Your task to perform on an android device: turn on bluetooth scan Image 0: 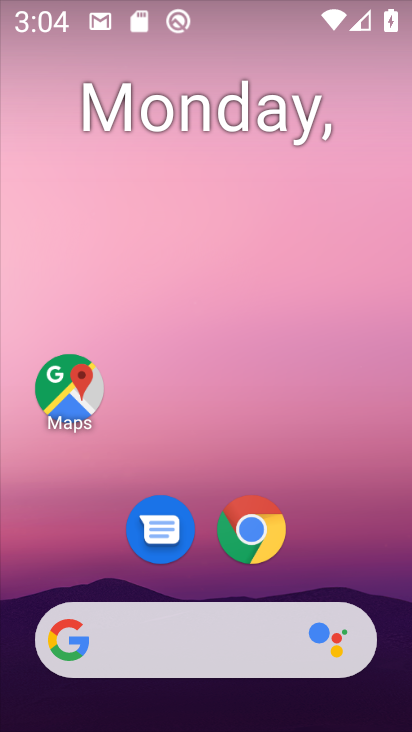
Step 0: drag from (223, 288) to (273, 103)
Your task to perform on an android device: turn on bluetooth scan Image 1: 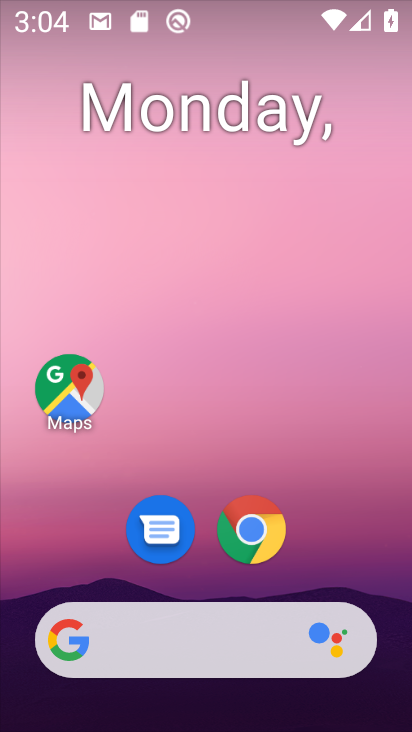
Step 1: drag from (200, 599) to (317, 28)
Your task to perform on an android device: turn on bluetooth scan Image 2: 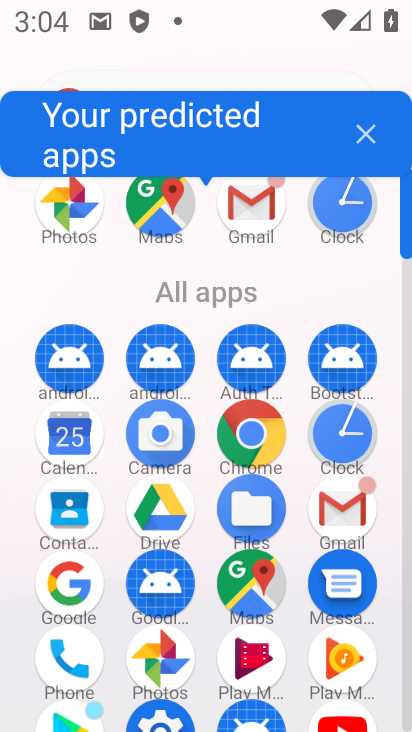
Step 2: click (169, 718)
Your task to perform on an android device: turn on bluetooth scan Image 3: 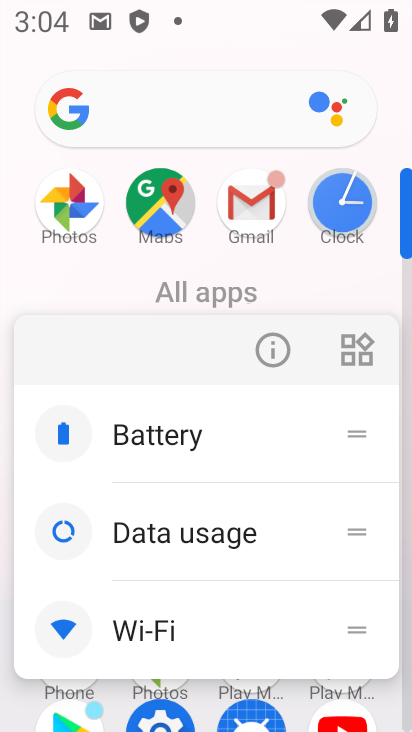
Step 3: click (185, 729)
Your task to perform on an android device: turn on bluetooth scan Image 4: 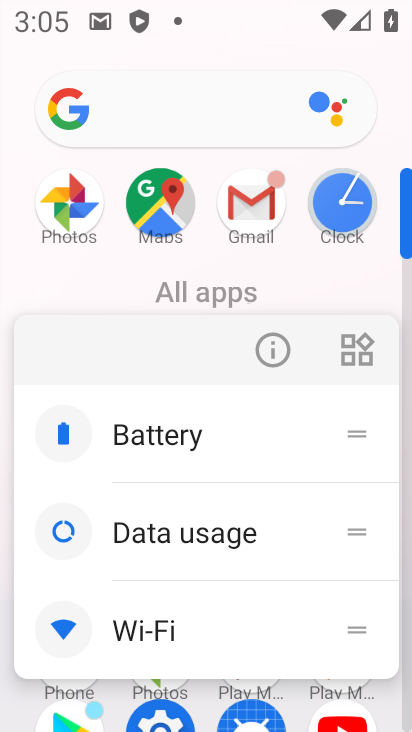
Step 4: click (158, 725)
Your task to perform on an android device: turn on bluetooth scan Image 5: 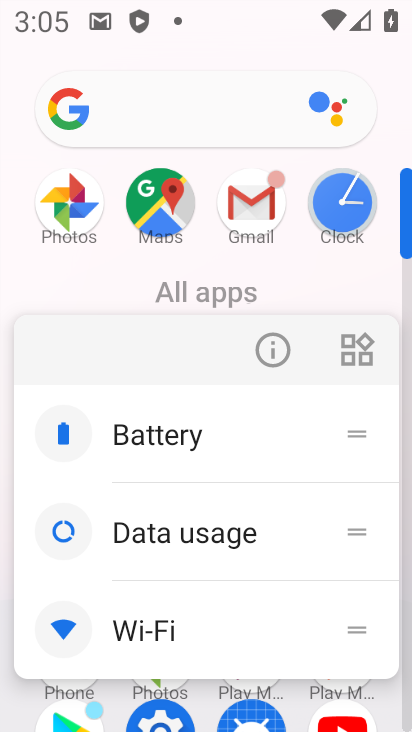
Step 5: click (158, 723)
Your task to perform on an android device: turn on bluetooth scan Image 6: 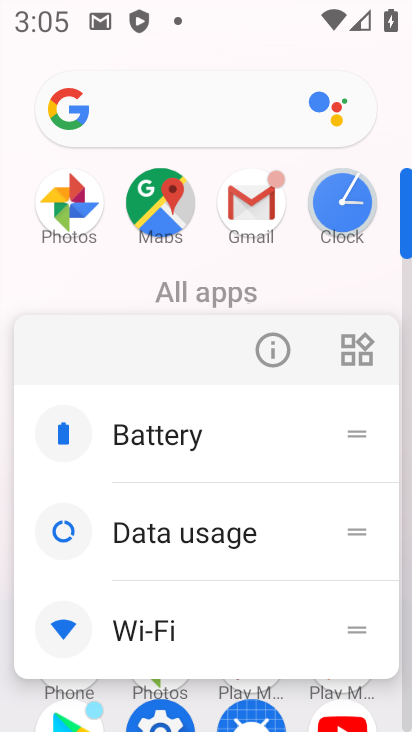
Step 6: click (168, 709)
Your task to perform on an android device: turn on bluetooth scan Image 7: 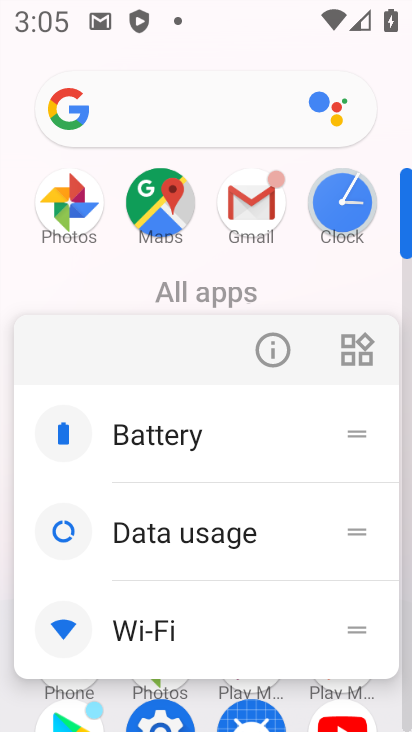
Step 7: click (162, 716)
Your task to perform on an android device: turn on bluetooth scan Image 8: 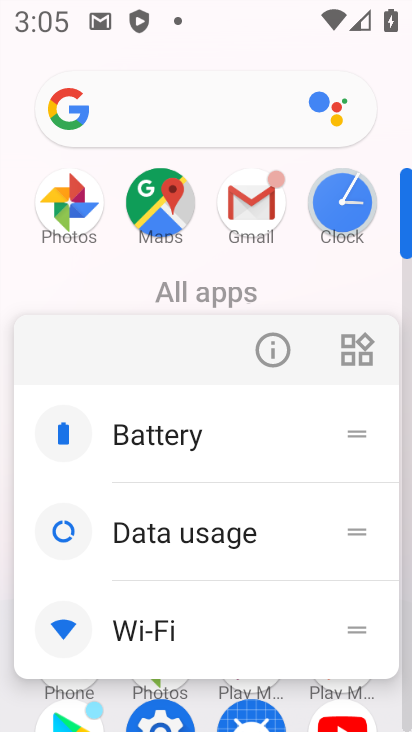
Step 8: click (168, 727)
Your task to perform on an android device: turn on bluetooth scan Image 9: 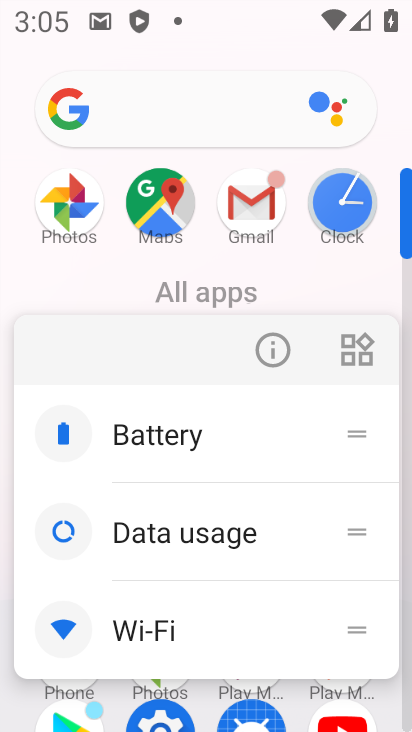
Step 9: click (165, 721)
Your task to perform on an android device: turn on bluetooth scan Image 10: 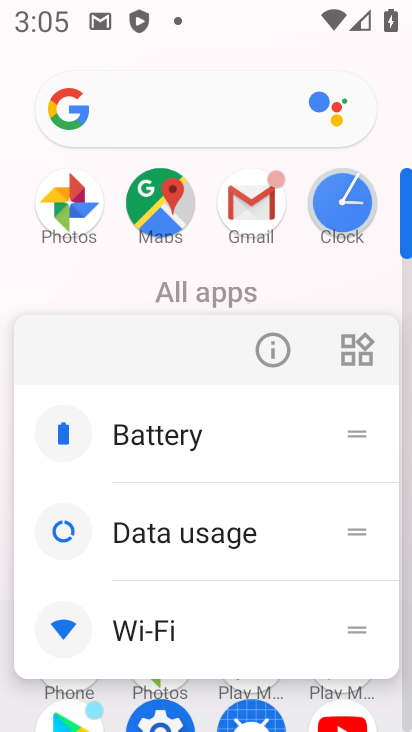
Step 10: drag from (399, 232) to (346, 632)
Your task to perform on an android device: turn on bluetooth scan Image 11: 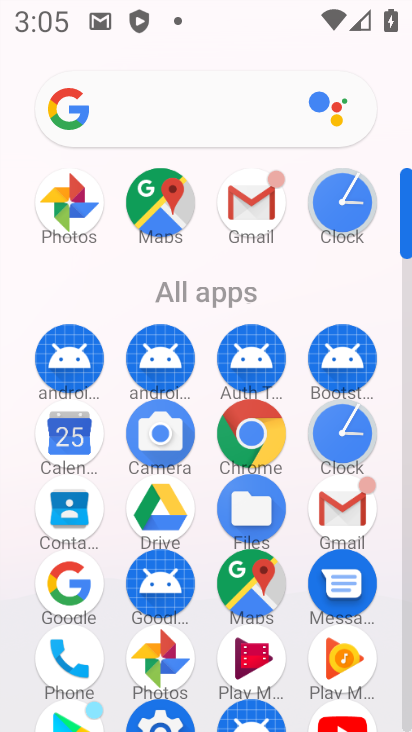
Step 11: drag from (410, 240) to (406, 554)
Your task to perform on an android device: turn on bluetooth scan Image 12: 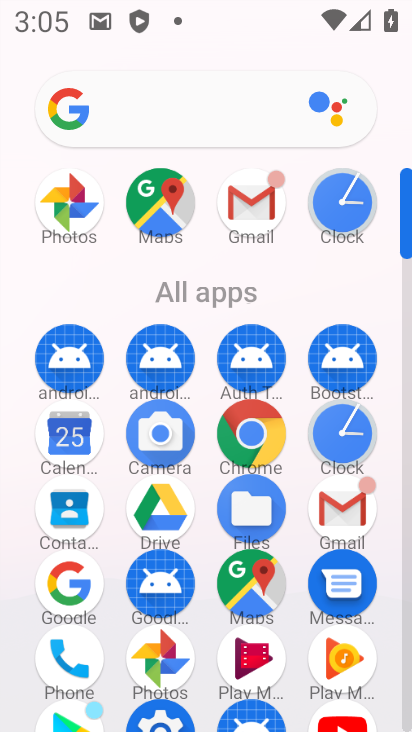
Step 12: click (391, 582)
Your task to perform on an android device: turn on bluetooth scan Image 13: 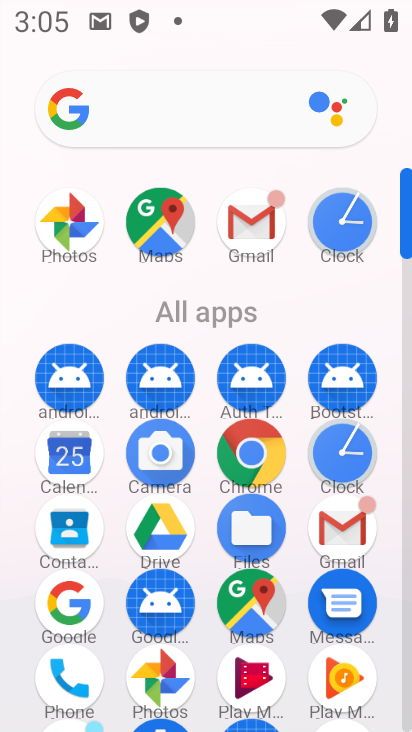
Step 13: click (166, 680)
Your task to perform on an android device: turn on bluetooth scan Image 14: 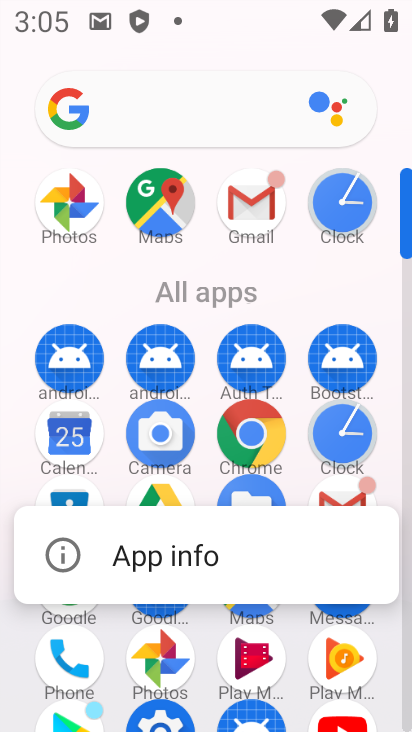
Step 14: click (163, 717)
Your task to perform on an android device: turn on bluetooth scan Image 15: 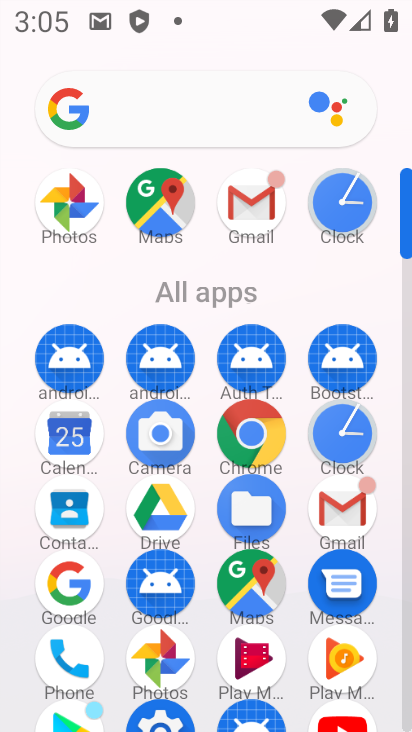
Step 15: drag from (410, 712) to (397, 596)
Your task to perform on an android device: turn on bluetooth scan Image 16: 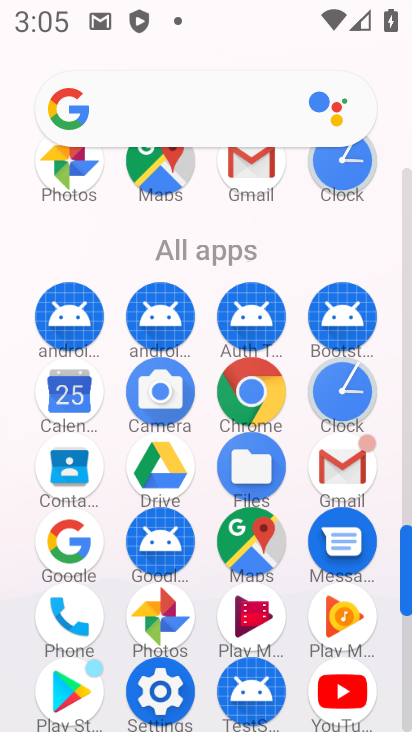
Step 16: click (146, 703)
Your task to perform on an android device: turn on bluetooth scan Image 17: 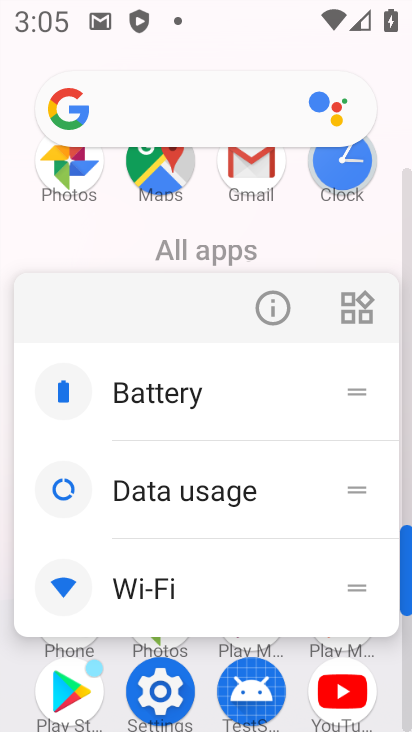
Step 17: click (160, 714)
Your task to perform on an android device: turn on bluetooth scan Image 18: 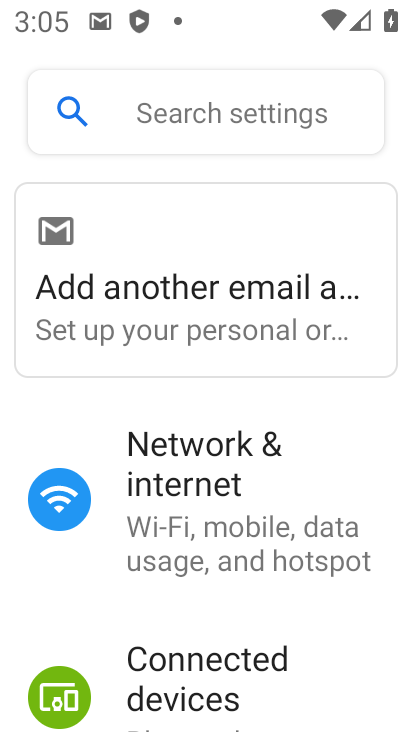
Step 18: click (248, 516)
Your task to perform on an android device: turn on bluetooth scan Image 19: 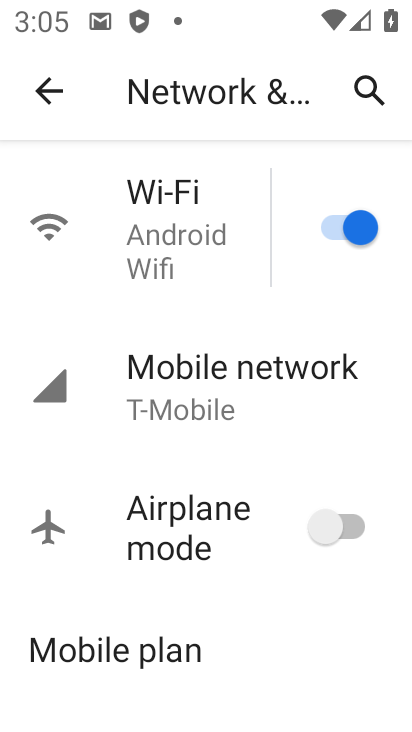
Step 19: press back button
Your task to perform on an android device: turn on bluetooth scan Image 20: 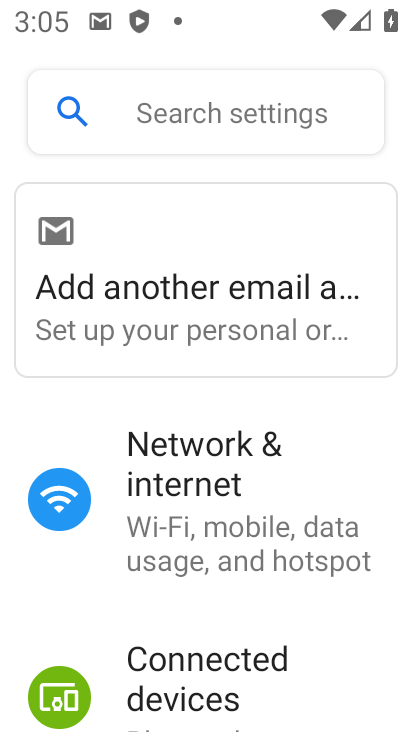
Step 20: drag from (191, 615) to (340, 185)
Your task to perform on an android device: turn on bluetooth scan Image 21: 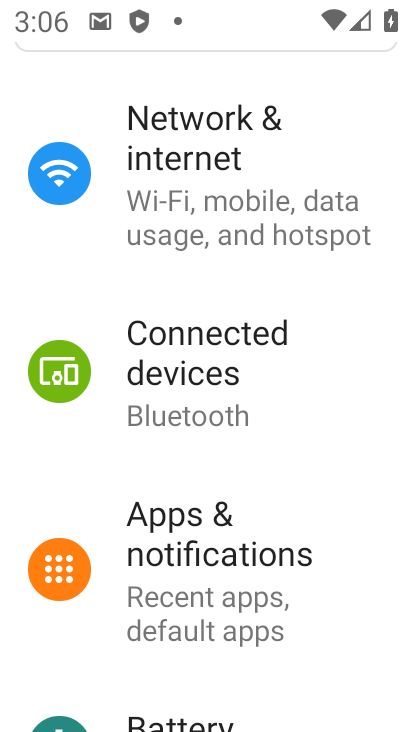
Step 21: click (257, 363)
Your task to perform on an android device: turn on bluetooth scan Image 22: 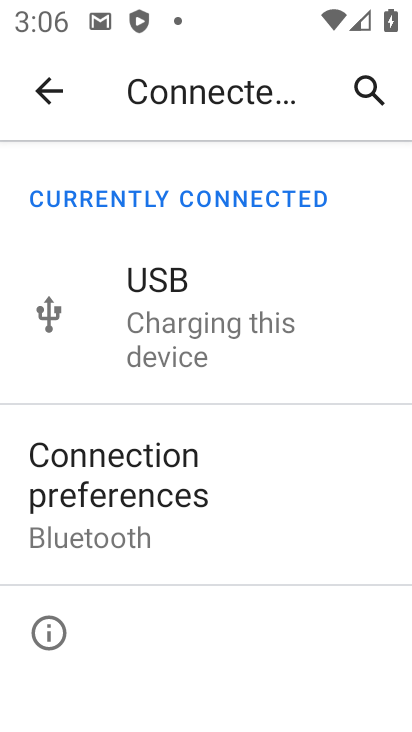
Step 22: click (219, 533)
Your task to perform on an android device: turn on bluetooth scan Image 23: 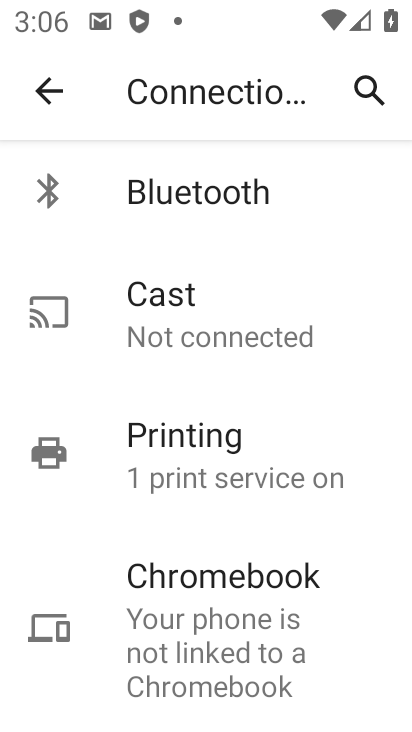
Step 23: click (290, 201)
Your task to perform on an android device: turn on bluetooth scan Image 24: 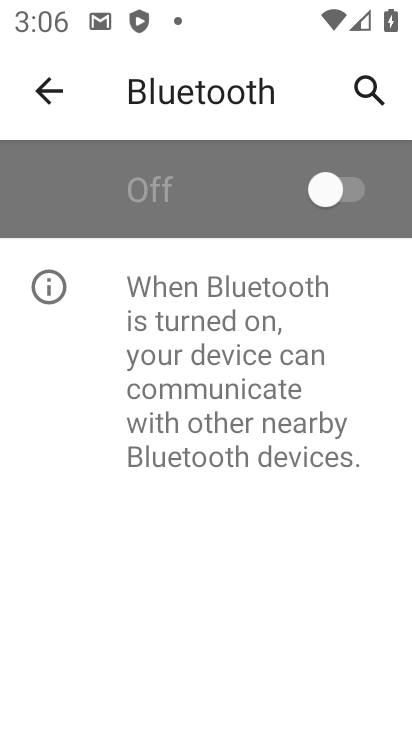
Step 24: click (366, 196)
Your task to perform on an android device: turn on bluetooth scan Image 25: 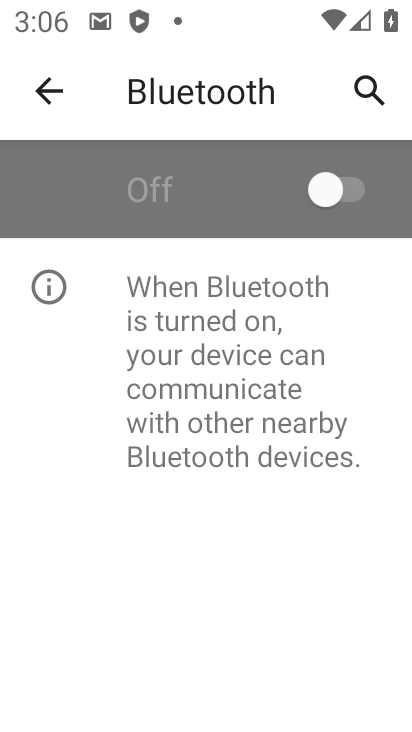
Step 25: task complete